Your task to perform on an android device: change timer sound Image 0: 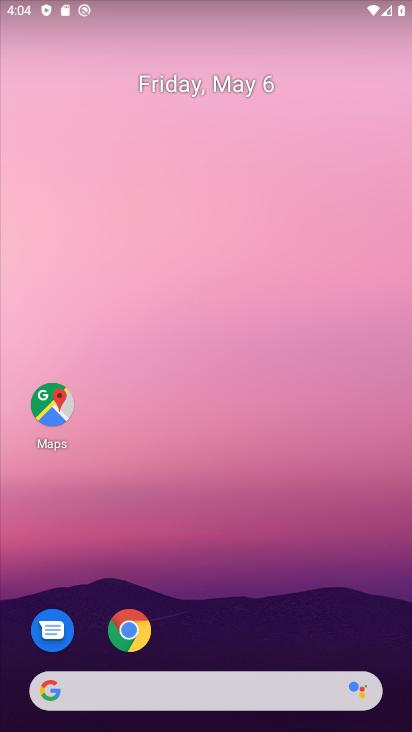
Step 0: click (254, 127)
Your task to perform on an android device: change timer sound Image 1: 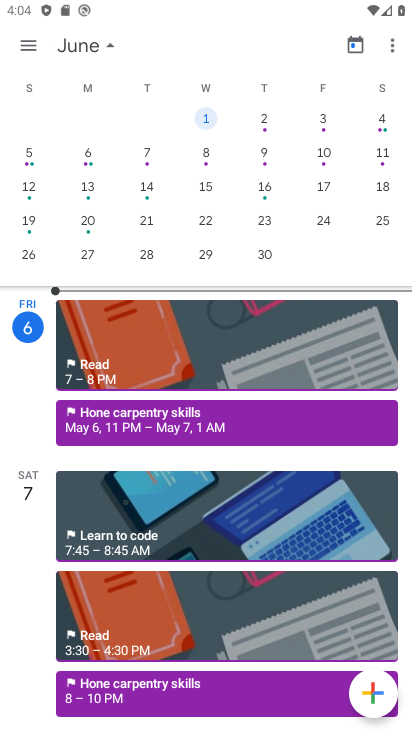
Step 1: press home button
Your task to perform on an android device: change timer sound Image 2: 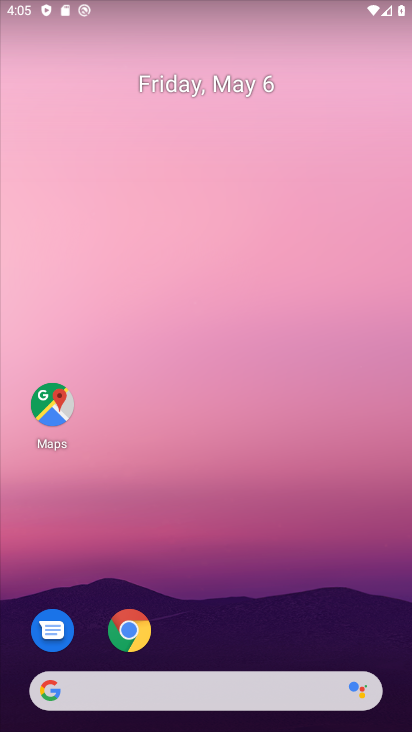
Step 2: drag from (275, 614) to (305, 95)
Your task to perform on an android device: change timer sound Image 3: 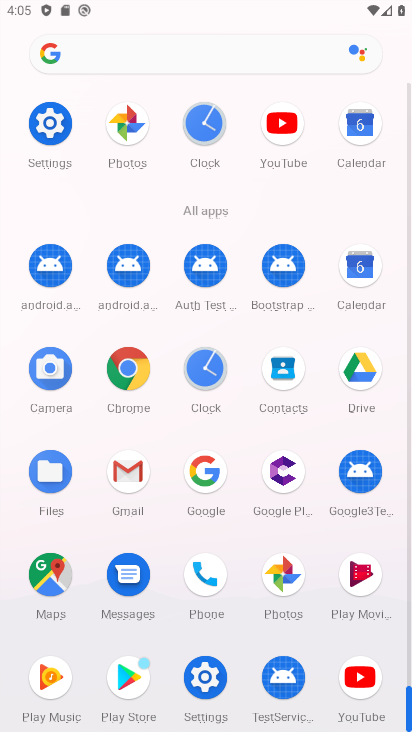
Step 3: click (225, 127)
Your task to perform on an android device: change timer sound Image 4: 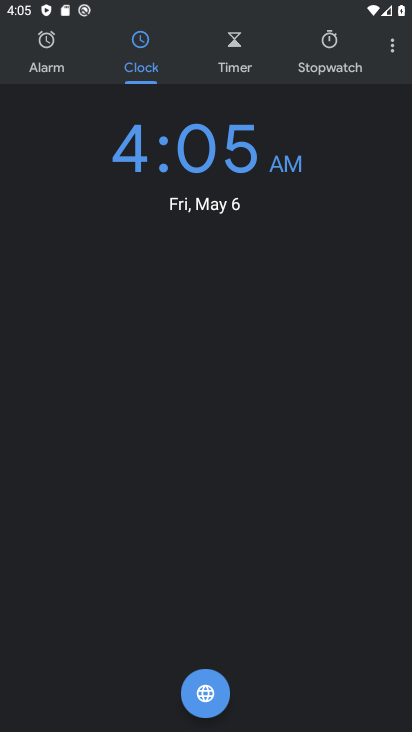
Step 4: click (398, 42)
Your task to perform on an android device: change timer sound Image 5: 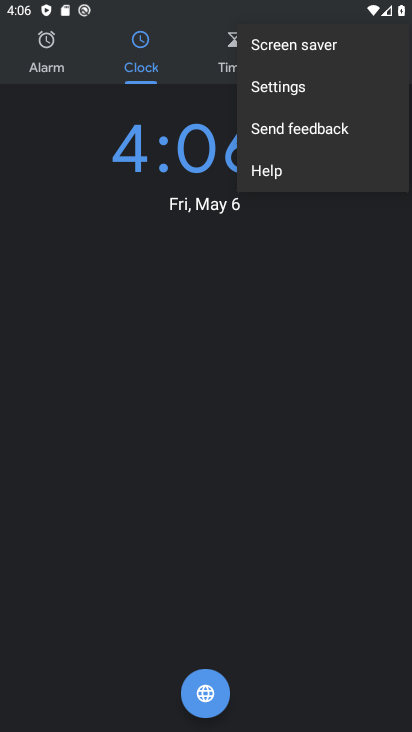
Step 5: click (295, 83)
Your task to perform on an android device: change timer sound Image 6: 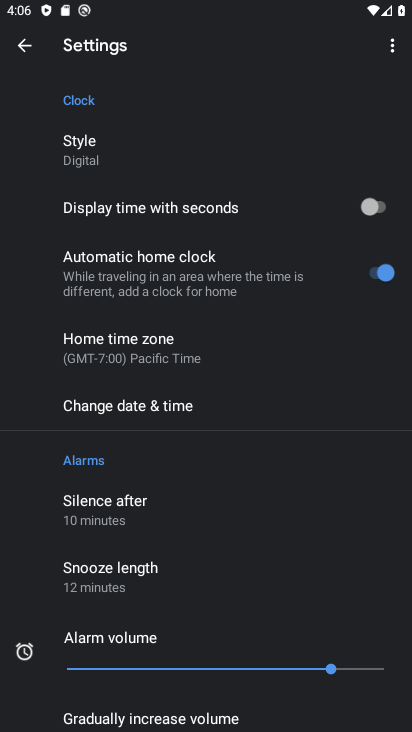
Step 6: drag from (232, 557) to (168, 237)
Your task to perform on an android device: change timer sound Image 7: 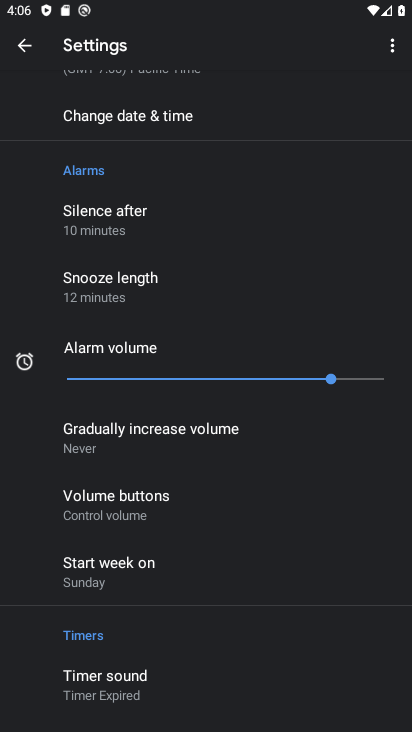
Step 7: drag from (215, 614) to (221, 427)
Your task to perform on an android device: change timer sound Image 8: 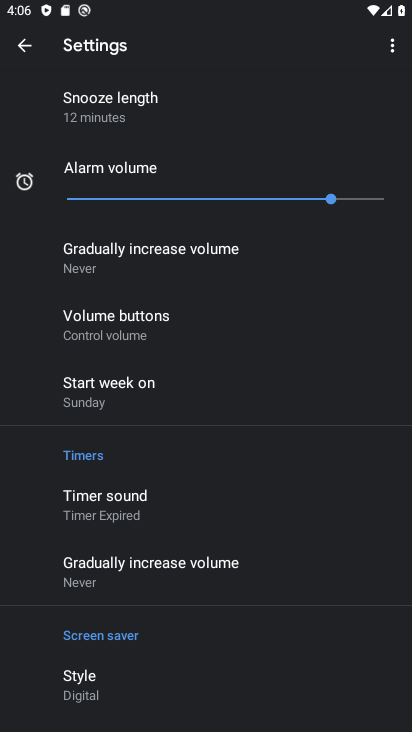
Step 8: click (235, 503)
Your task to perform on an android device: change timer sound Image 9: 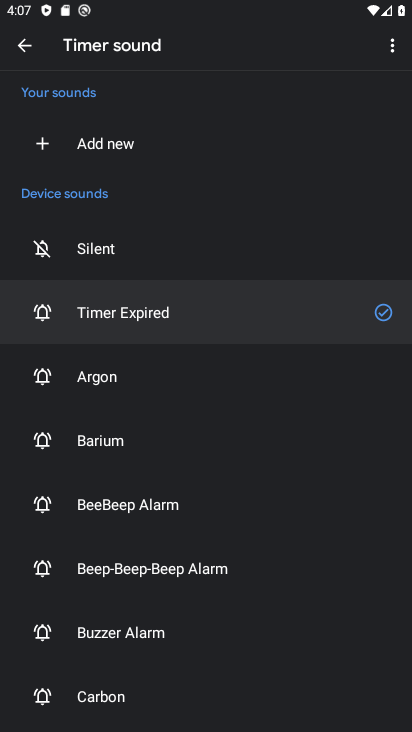
Step 9: click (210, 351)
Your task to perform on an android device: change timer sound Image 10: 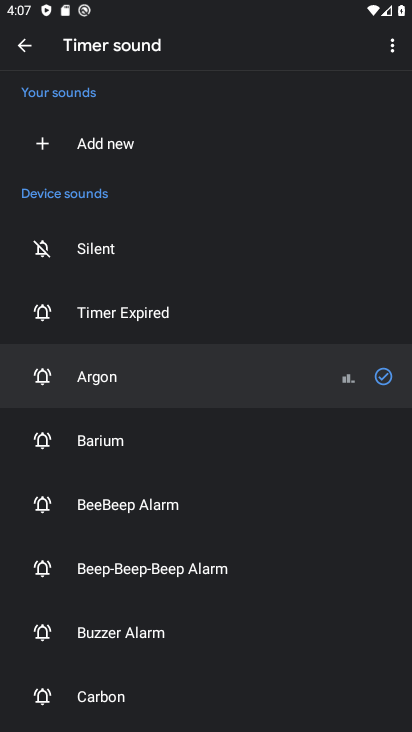
Step 10: task complete